Your task to perform on an android device: Go to CNN.com Image 0: 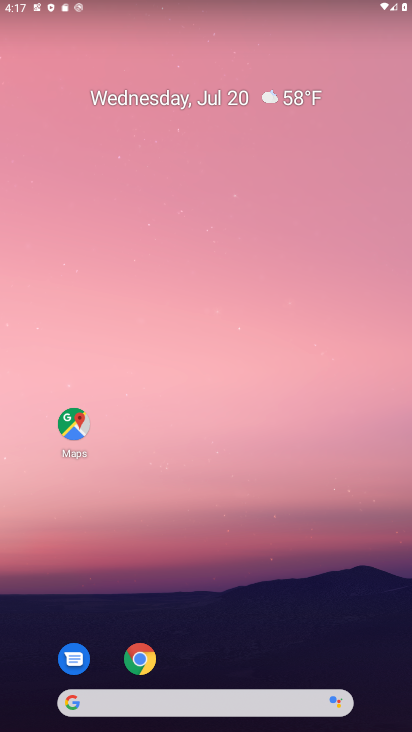
Step 0: drag from (256, 669) to (256, 105)
Your task to perform on an android device: Go to CNN.com Image 1: 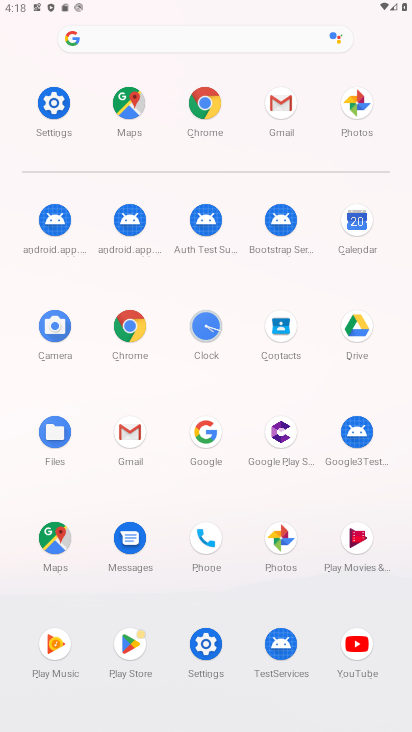
Step 1: click (138, 309)
Your task to perform on an android device: Go to CNN.com Image 2: 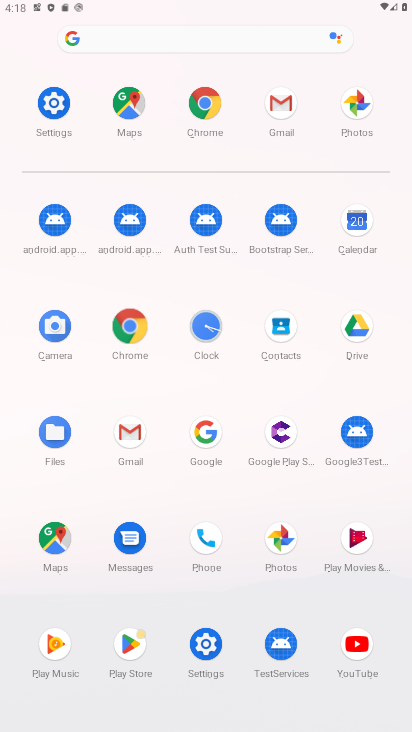
Step 2: click (131, 314)
Your task to perform on an android device: Go to CNN.com Image 3: 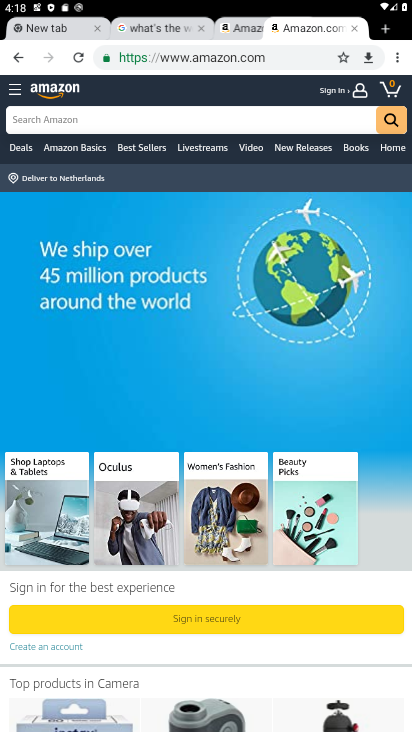
Step 3: click (384, 25)
Your task to perform on an android device: Go to CNN.com Image 4: 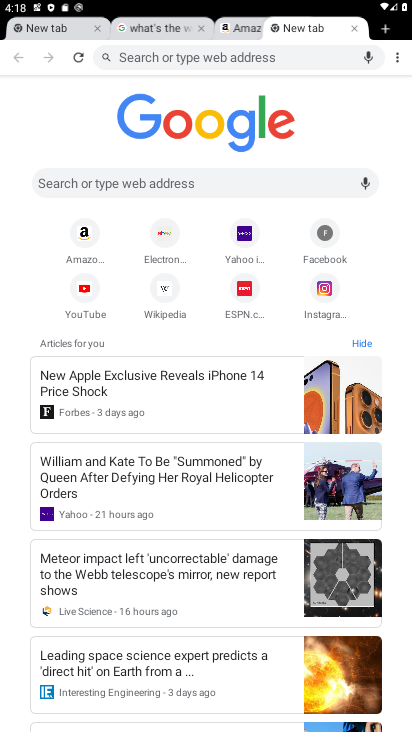
Step 4: click (141, 55)
Your task to perform on an android device: Go to CNN.com Image 5: 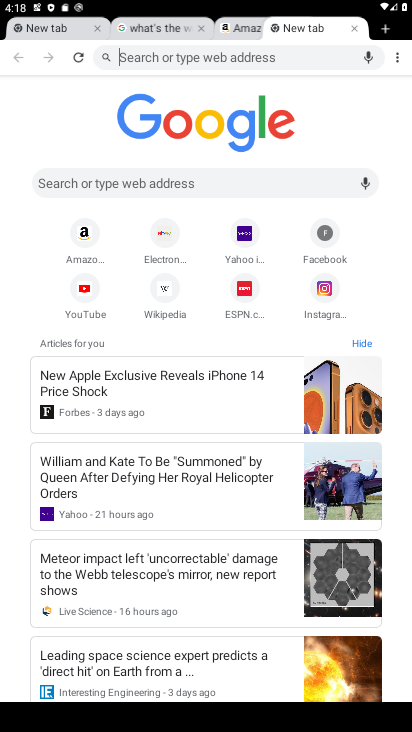
Step 5: type "CNN>com"
Your task to perform on an android device: Go to CNN.com Image 6: 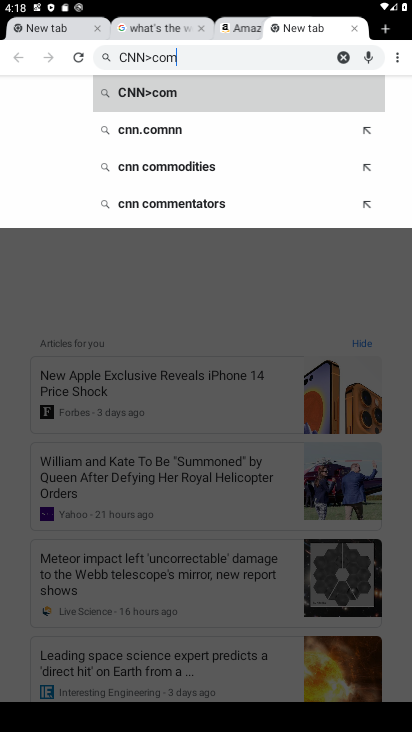
Step 6: click (166, 85)
Your task to perform on an android device: Go to CNN.com Image 7: 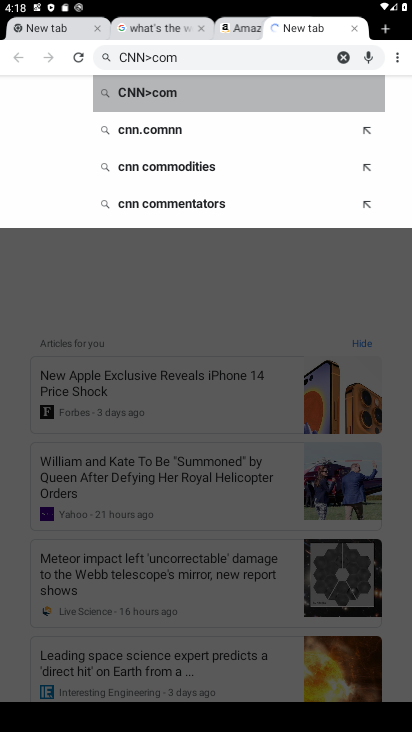
Step 7: click (165, 86)
Your task to perform on an android device: Go to CNN.com Image 8: 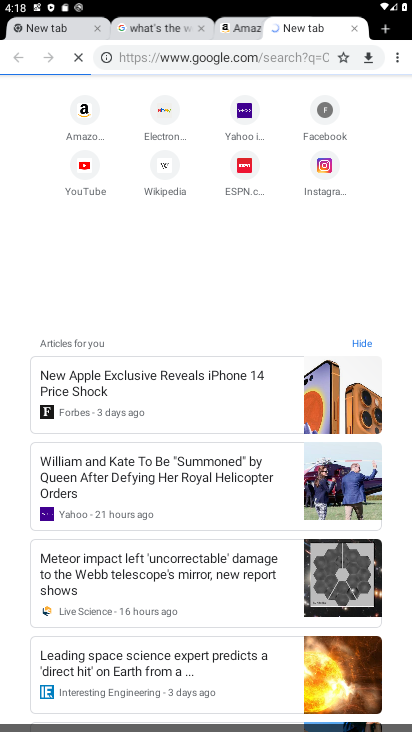
Step 8: click (166, 87)
Your task to perform on an android device: Go to CNN.com Image 9: 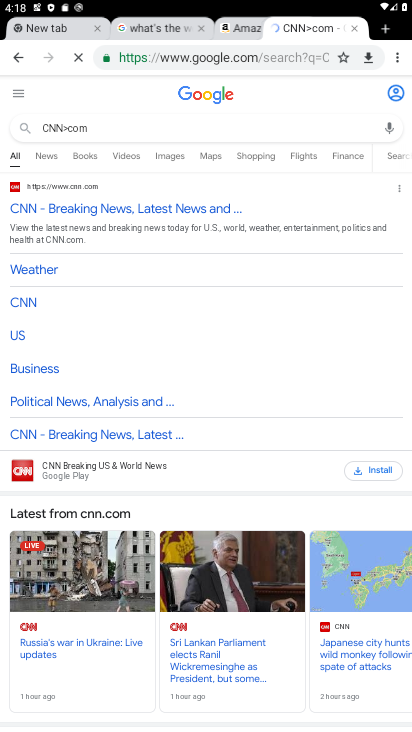
Step 9: task complete